Your task to perform on an android device: Search for the new iphone 13 pro on Etsy. Image 0: 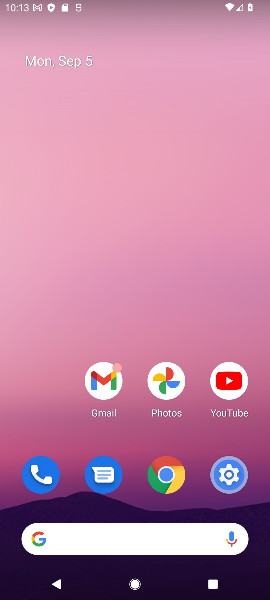
Step 0: click (125, 530)
Your task to perform on an android device: Search for the new iphone 13 pro on Etsy. Image 1: 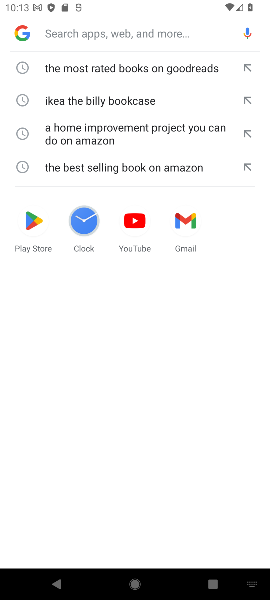
Step 1: type "the new iphone 13 pro on Etsy"
Your task to perform on an android device: Search for the new iphone 13 pro on Etsy. Image 2: 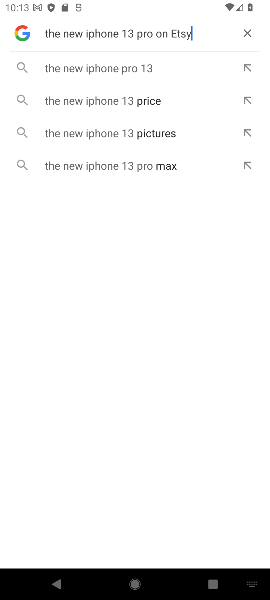
Step 2: click (112, 64)
Your task to perform on an android device: Search for the new iphone 13 pro on Etsy. Image 3: 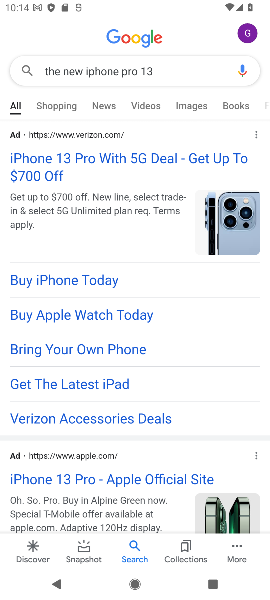
Step 3: drag from (157, 428) to (166, 13)
Your task to perform on an android device: Search for the new iphone 13 pro on Etsy. Image 4: 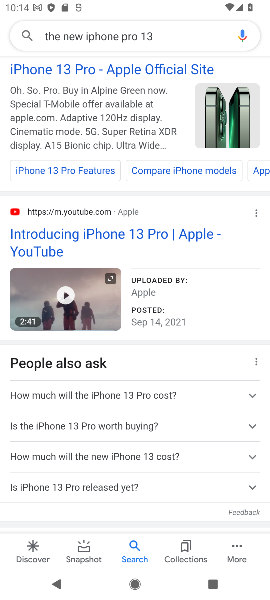
Step 4: click (170, 35)
Your task to perform on an android device: Search for the new iphone 13 pro on Etsy. Image 5: 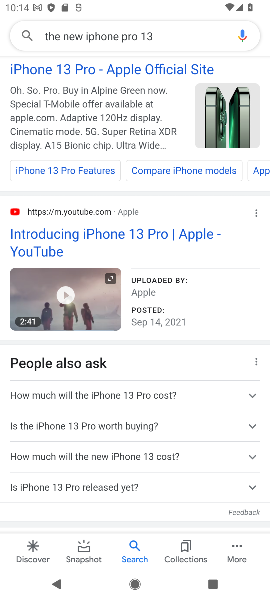
Step 5: click (170, 35)
Your task to perform on an android device: Search for the new iphone 13 pro on Etsy. Image 6: 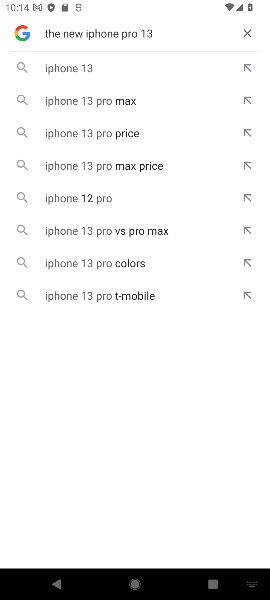
Step 6: type " "
Your task to perform on an android device: Search for the new iphone 13 pro on Etsy. Image 7: 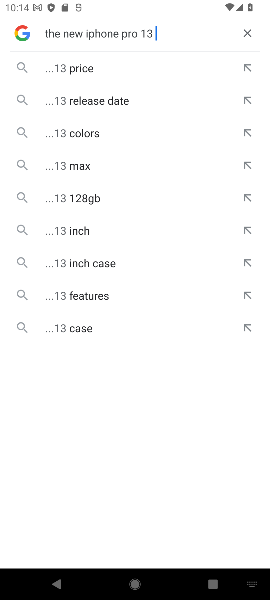
Step 7: type " pro on Etsy."
Your task to perform on an android device: Search for the new iphone 13 pro on Etsy. Image 8: 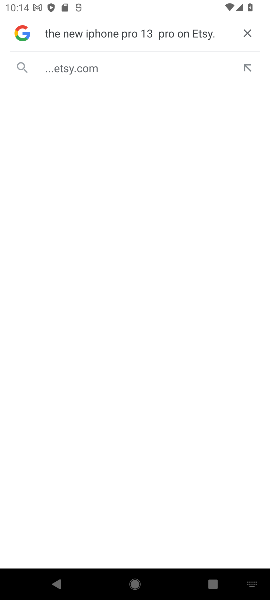
Step 8: click (85, 65)
Your task to perform on an android device: Search for the new iphone 13 pro on Etsy. Image 9: 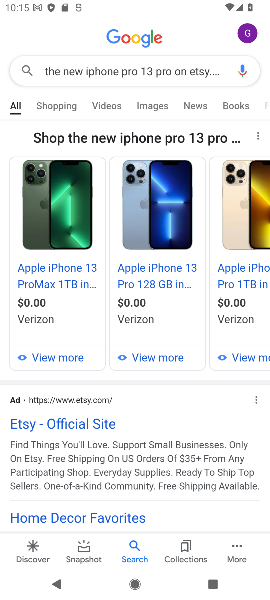
Step 9: task complete